Your task to perform on an android device: What's the weather going to be tomorrow? Image 0: 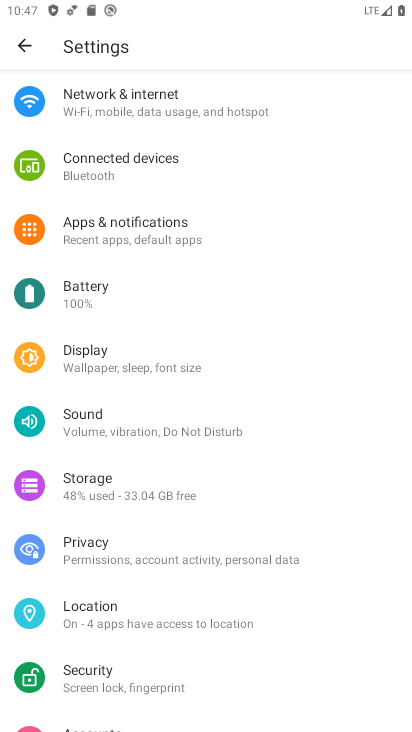
Step 0: press home button
Your task to perform on an android device: What's the weather going to be tomorrow? Image 1: 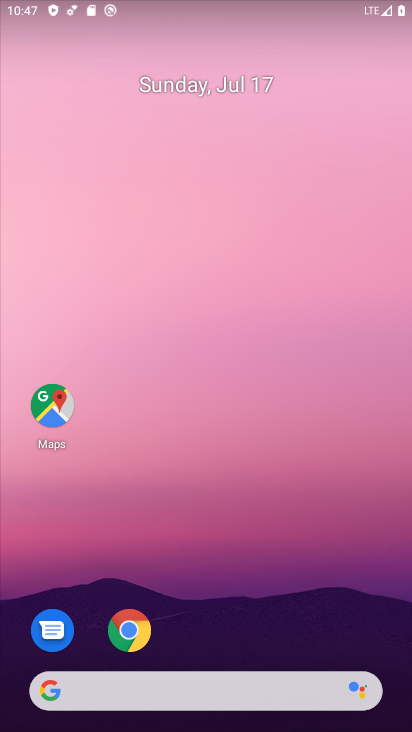
Step 1: click (164, 700)
Your task to perform on an android device: What's the weather going to be tomorrow? Image 2: 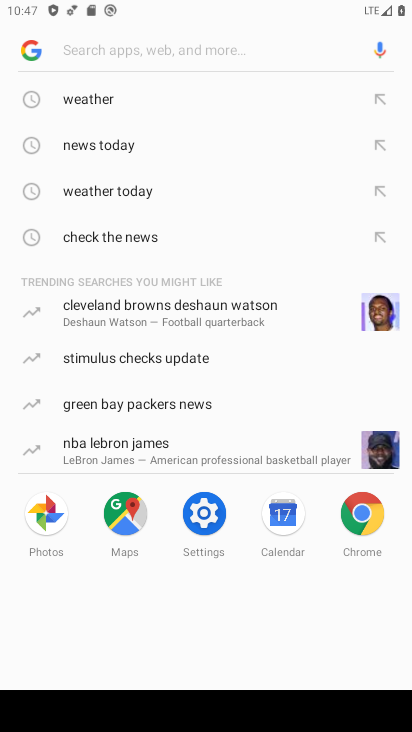
Step 2: click (79, 90)
Your task to perform on an android device: What's the weather going to be tomorrow? Image 3: 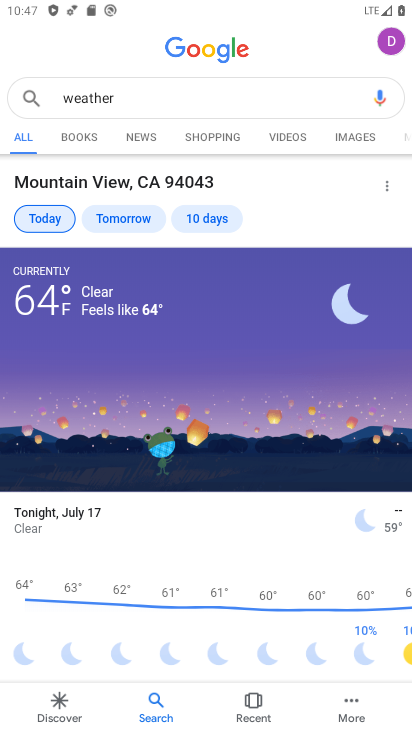
Step 3: click (144, 212)
Your task to perform on an android device: What's the weather going to be tomorrow? Image 4: 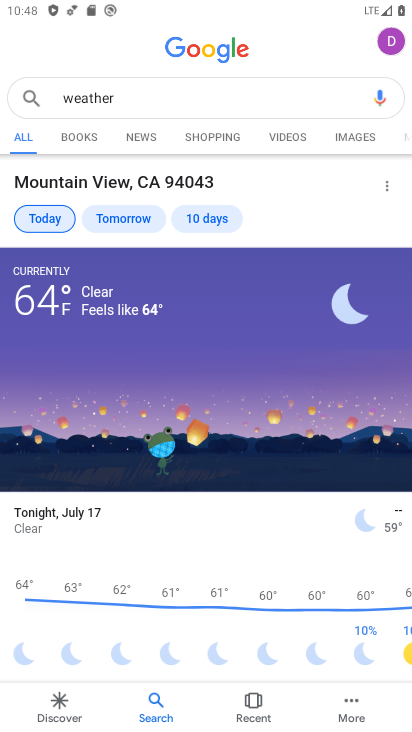
Step 4: click (112, 214)
Your task to perform on an android device: What's the weather going to be tomorrow? Image 5: 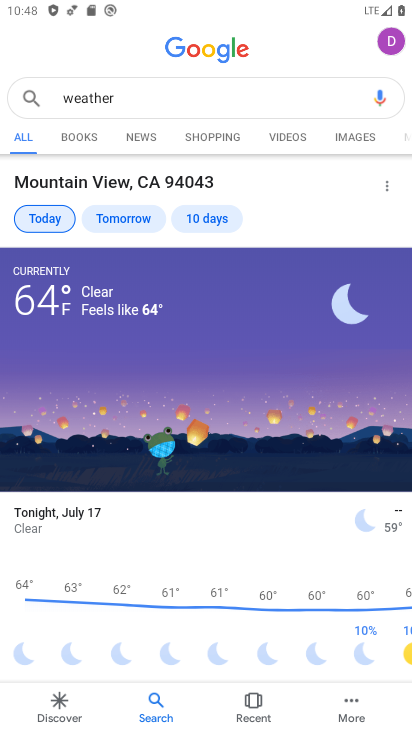
Step 5: click (112, 214)
Your task to perform on an android device: What's the weather going to be tomorrow? Image 6: 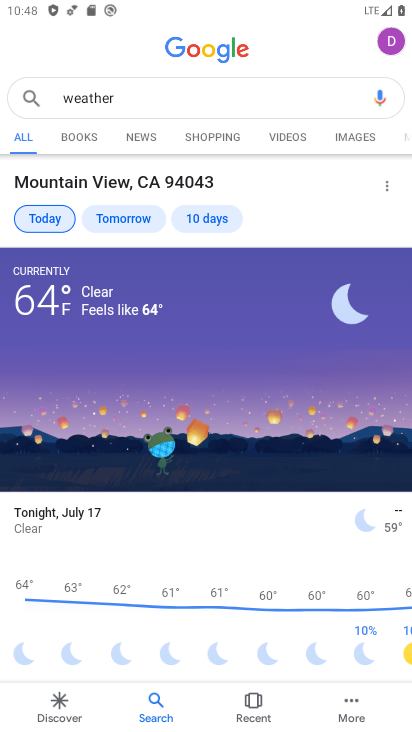
Step 6: click (114, 220)
Your task to perform on an android device: What's the weather going to be tomorrow? Image 7: 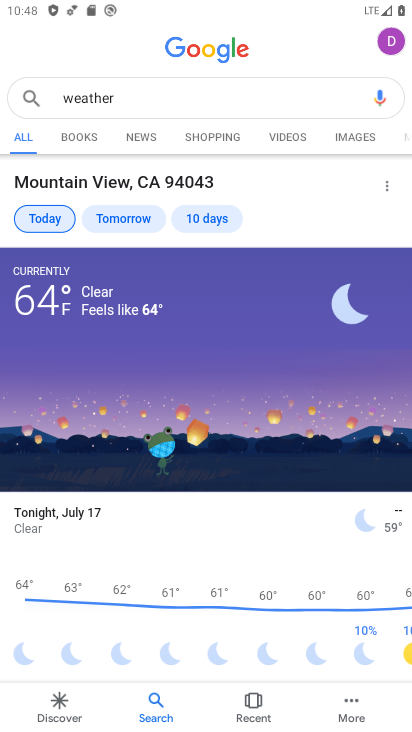
Step 7: click (114, 220)
Your task to perform on an android device: What's the weather going to be tomorrow? Image 8: 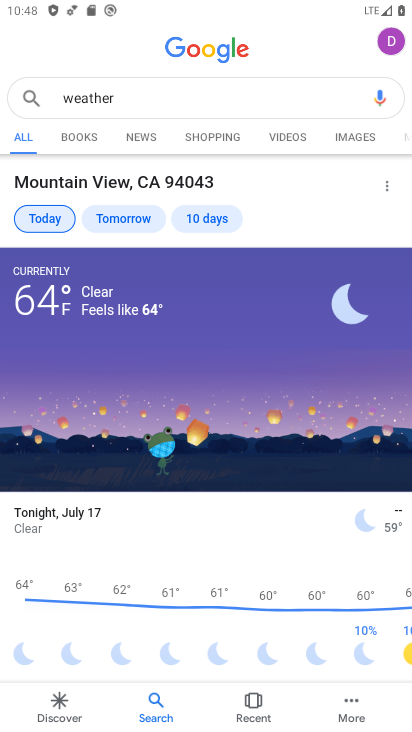
Step 8: click (114, 225)
Your task to perform on an android device: What's the weather going to be tomorrow? Image 9: 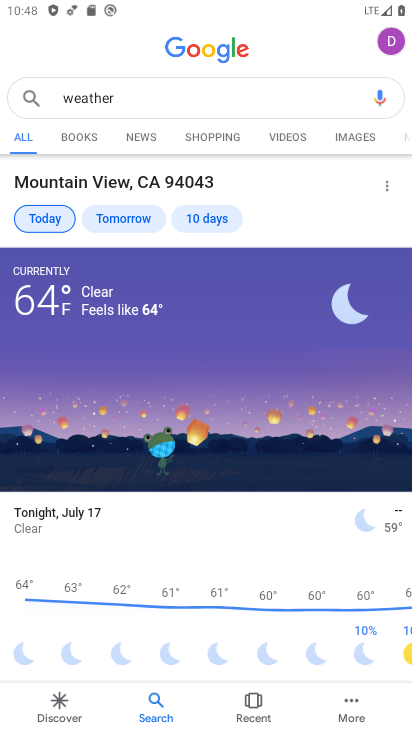
Step 9: click (114, 226)
Your task to perform on an android device: What's the weather going to be tomorrow? Image 10: 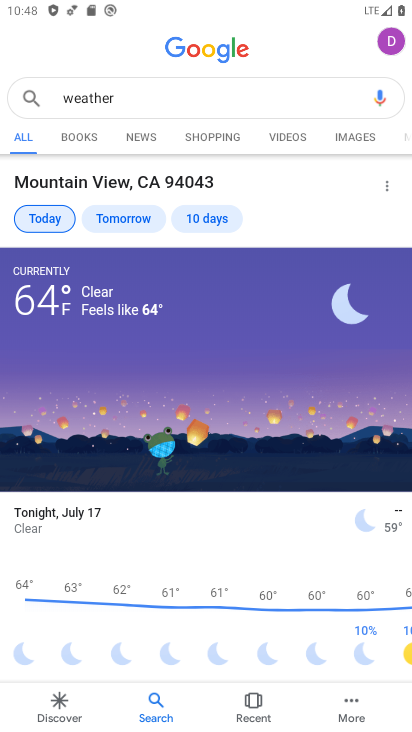
Step 10: task complete